Your task to perform on an android device: turn on airplane mode Image 0: 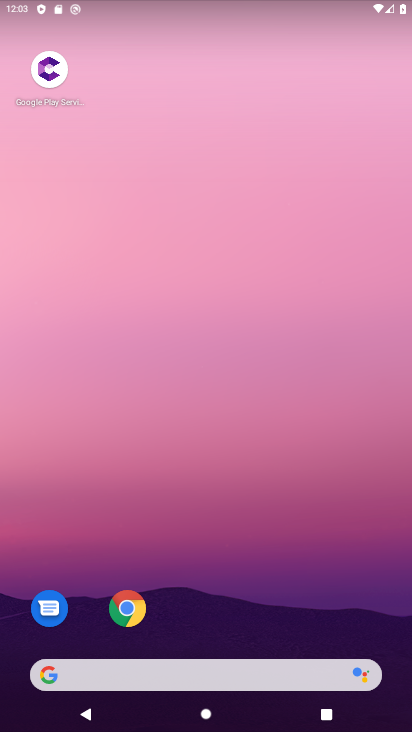
Step 0: drag from (273, 8) to (324, 596)
Your task to perform on an android device: turn on airplane mode Image 1: 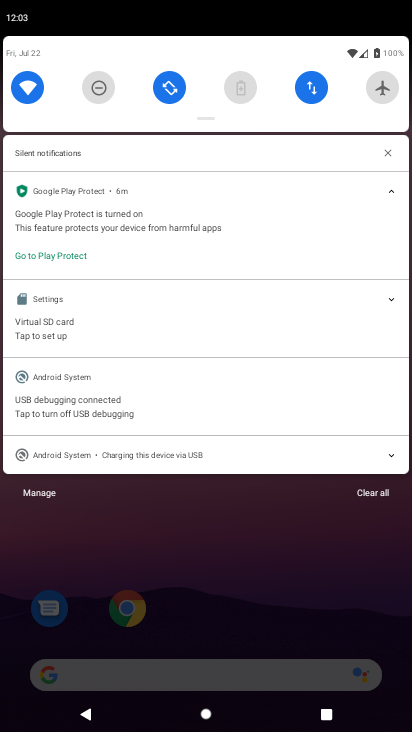
Step 1: click (383, 90)
Your task to perform on an android device: turn on airplane mode Image 2: 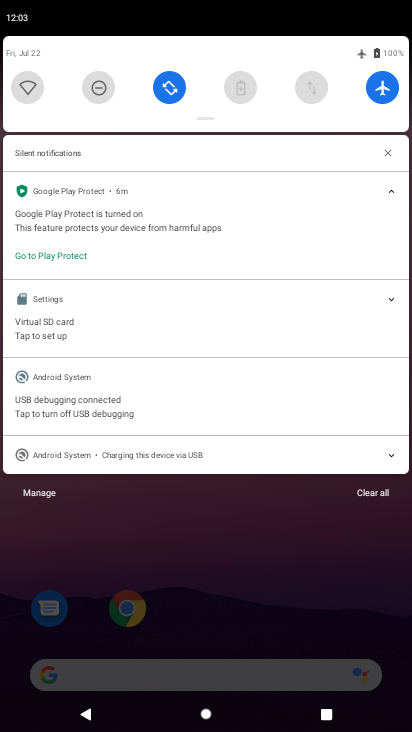
Step 2: task complete